Your task to perform on an android device: open chrome and create a bookmark for the current page Image 0: 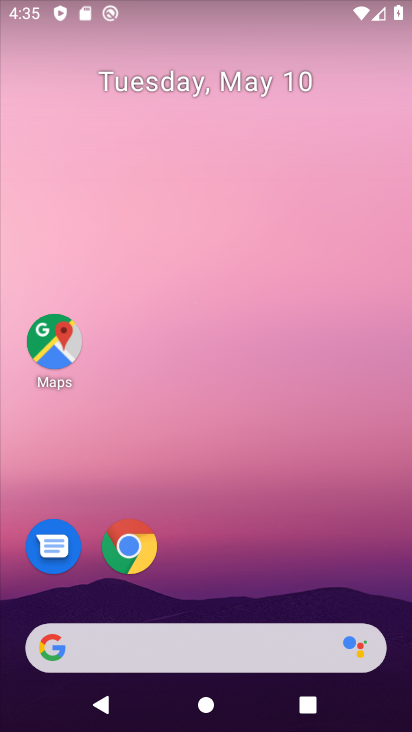
Step 0: click (136, 568)
Your task to perform on an android device: open chrome and create a bookmark for the current page Image 1: 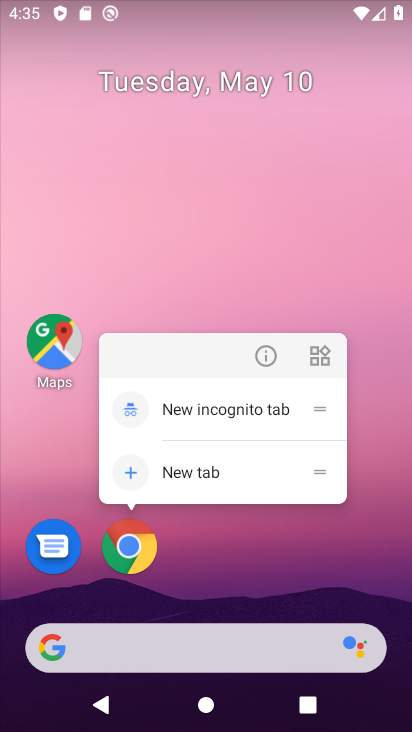
Step 1: click (136, 546)
Your task to perform on an android device: open chrome and create a bookmark for the current page Image 2: 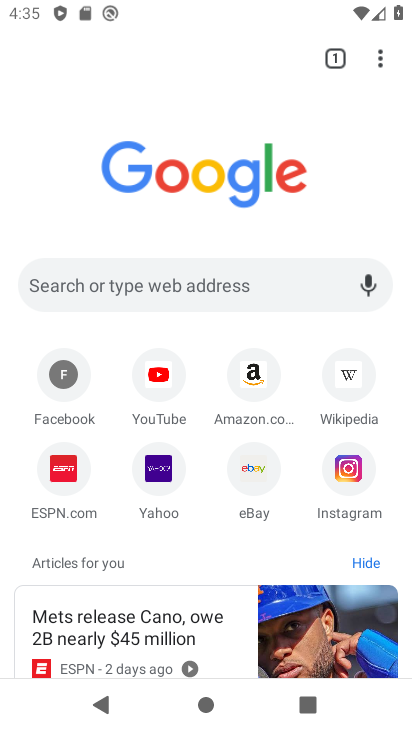
Step 2: task complete